Your task to perform on an android device: Go to Maps Image 0: 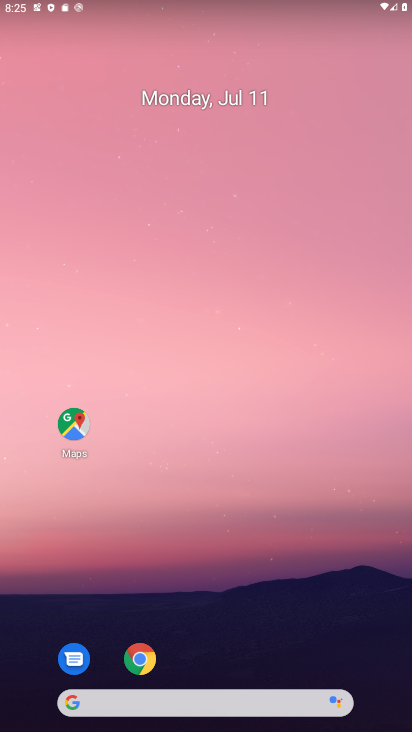
Step 0: drag from (240, 444) to (301, 194)
Your task to perform on an android device: Go to Maps Image 1: 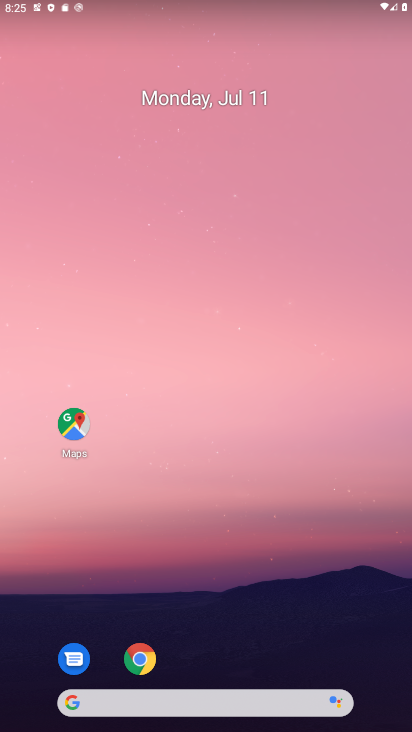
Step 1: click (77, 420)
Your task to perform on an android device: Go to Maps Image 2: 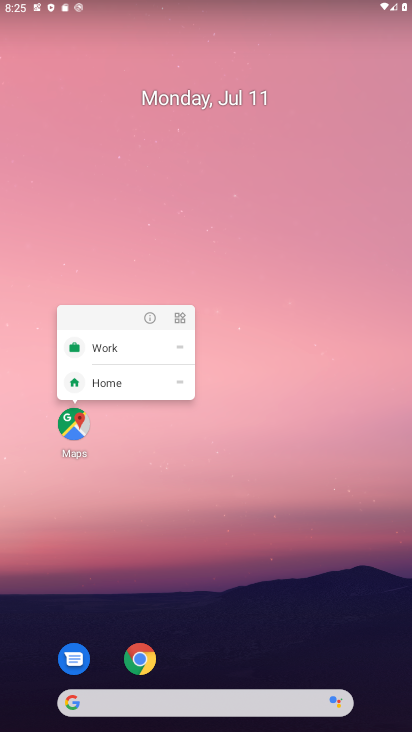
Step 2: click (147, 320)
Your task to perform on an android device: Go to Maps Image 3: 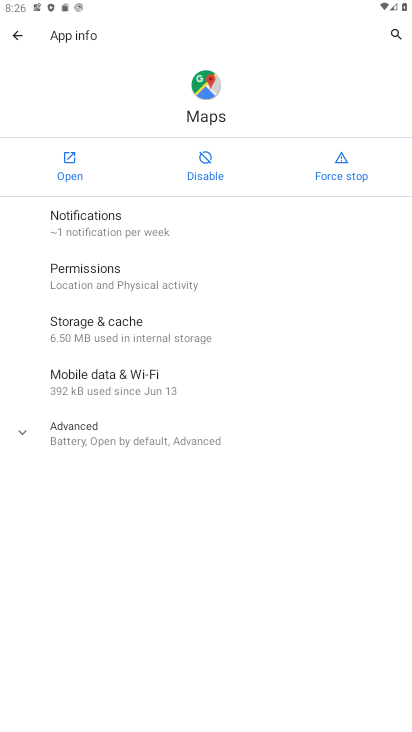
Step 3: click (85, 165)
Your task to perform on an android device: Go to Maps Image 4: 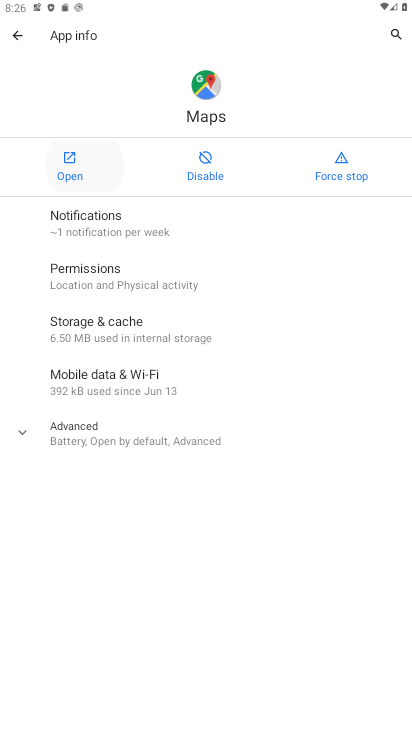
Step 4: click (73, 163)
Your task to perform on an android device: Go to Maps Image 5: 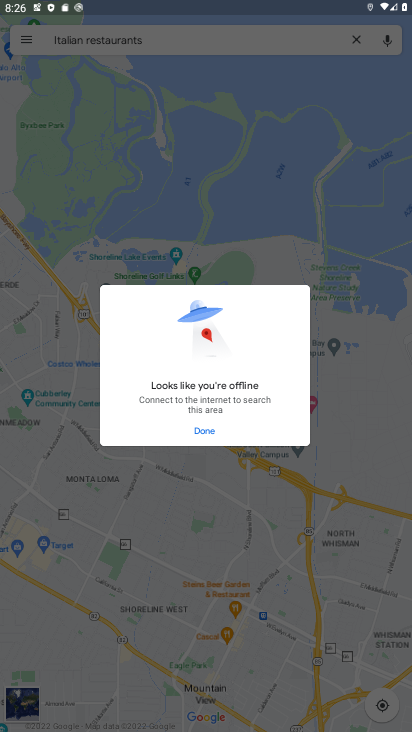
Step 5: click (198, 429)
Your task to perform on an android device: Go to Maps Image 6: 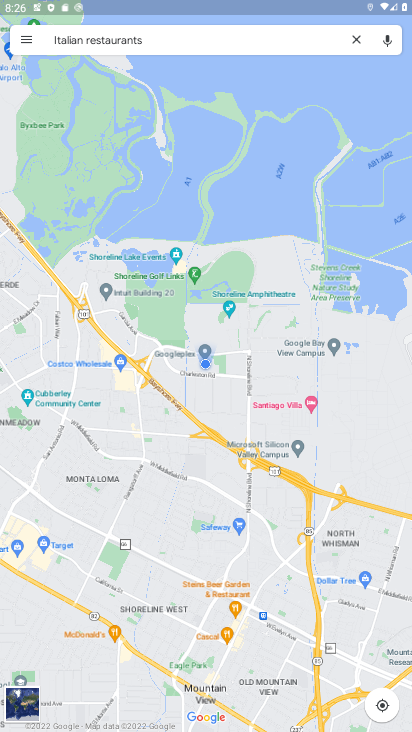
Step 6: task complete